Your task to perform on an android device: snooze an email in the gmail app Image 0: 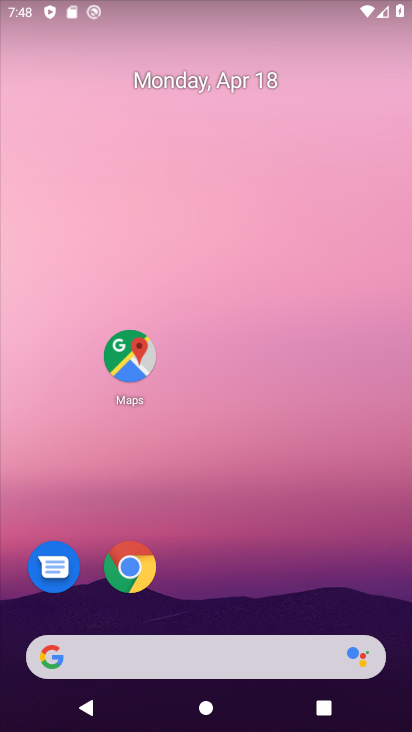
Step 0: drag from (258, 674) to (292, 167)
Your task to perform on an android device: snooze an email in the gmail app Image 1: 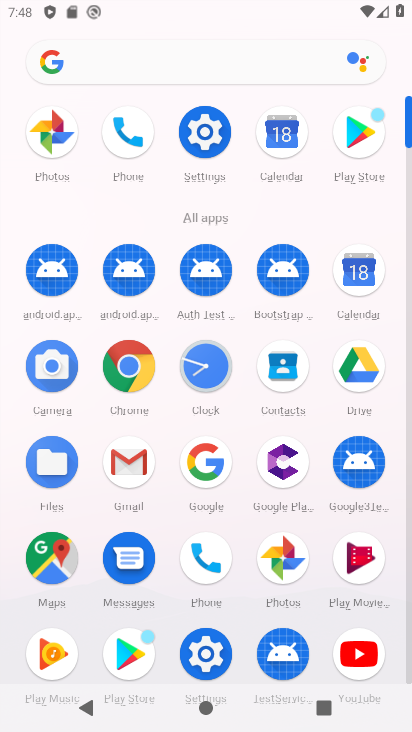
Step 1: click (123, 477)
Your task to perform on an android device: snooze an email in the gmail app Image 2: 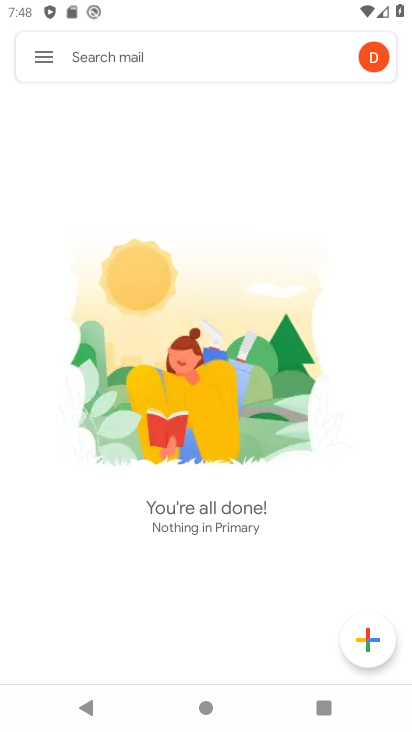
Step 2: click (42, 64)
Your task to perform on an android device: snooze an email in the gmail app Image 3: 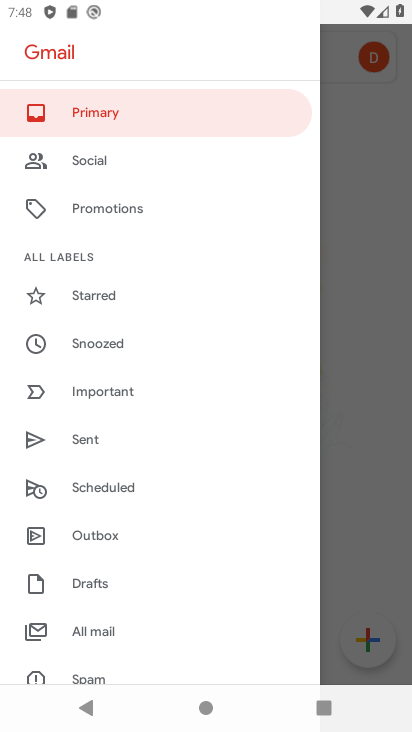
Step 3: click (116, 342)
Your task to perform on an android device: snooze an email in the gmail app Image 4: 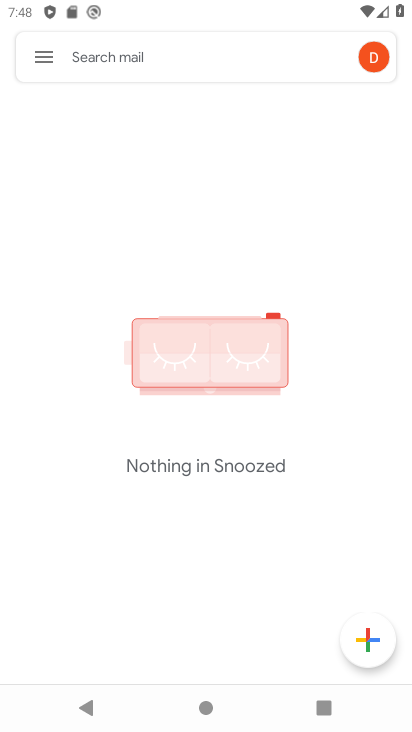
Step 4: click (42, 80)
Your task to perform on an android device: snooze an email in the gmail app Image 5: 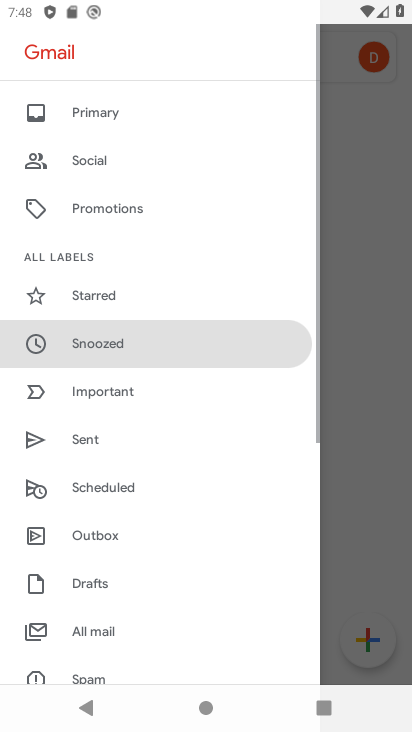
Step 5: click (93, 339)
Your task to perform on an android device: snooze an email in the gmail app Image 6: 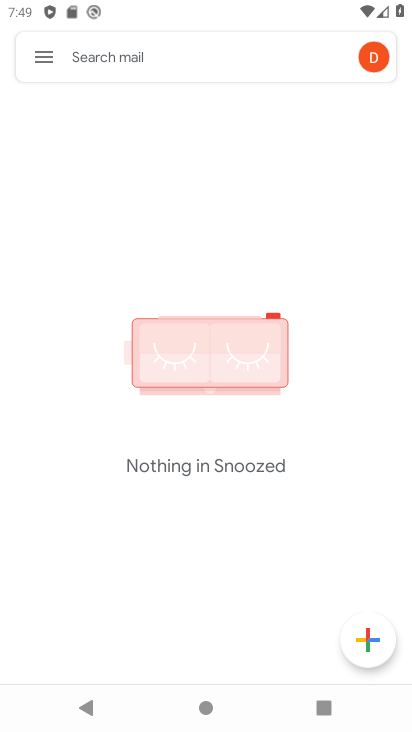
Step 6: task complete